Your task to perform on an android device: Go to internet settings Image 0: 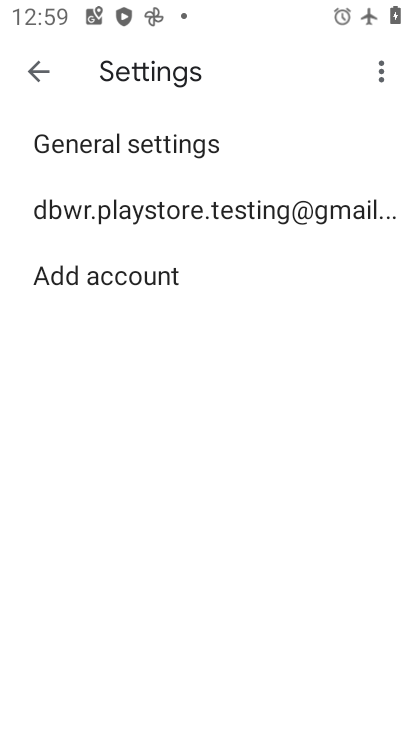
Step 0: press home button
Your task to perform on an android device: Go to internet settings Image 1: 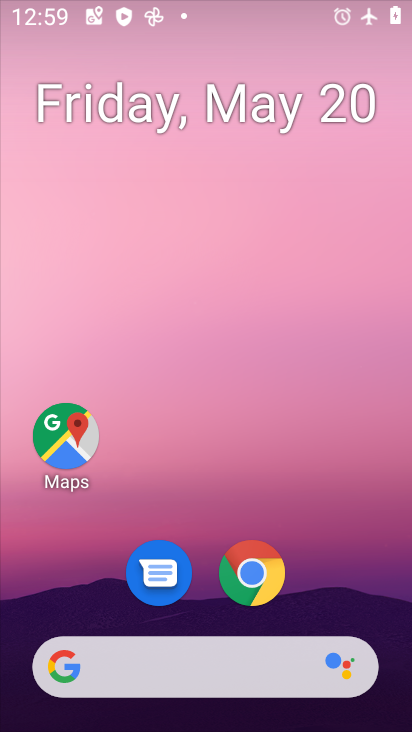
Step 1: drag from (222, 587) to (213, 54)
Your task to perform on an android device: Go to internet settings Image 2: 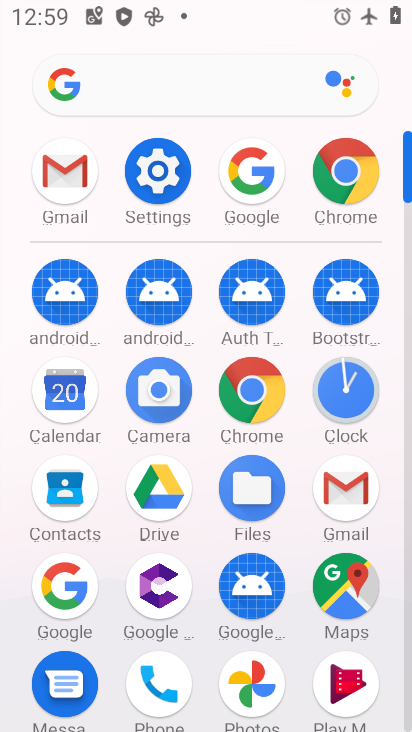
Step 2: click (156, 154)
Your task to perform on an android device: Go to internet settings Image 3: 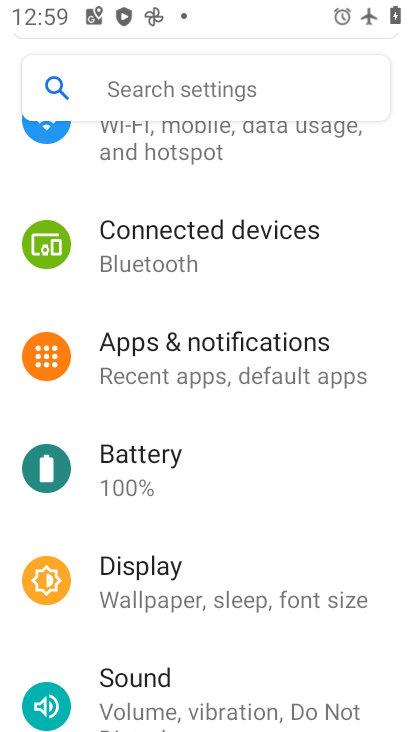
Step 3: click (156, 139)
Your task to perform on an android device: Go to internet settings Image 4: 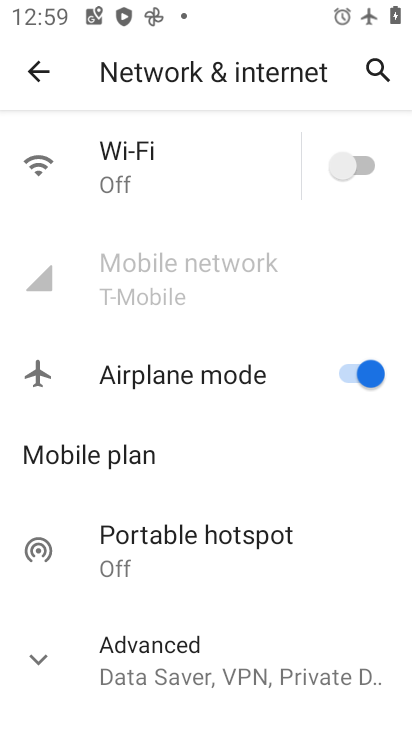
Step 4: click (162, 164)
Your task to perform on an android device: Go to internet settings Image 5: 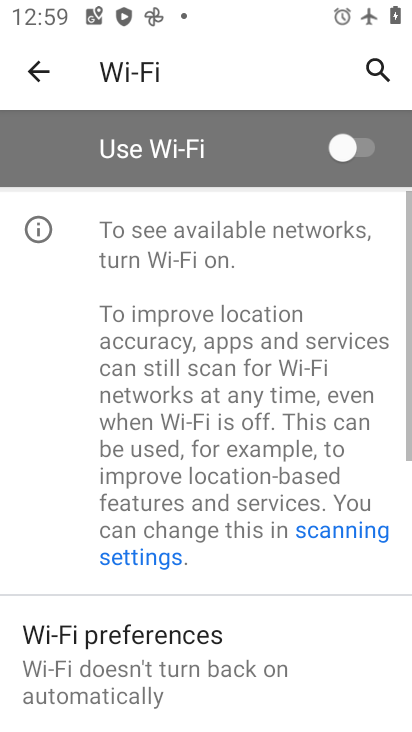
Step 5: click (332, 151)
Your task to perform on an android device: Go to internet settings Image 6: 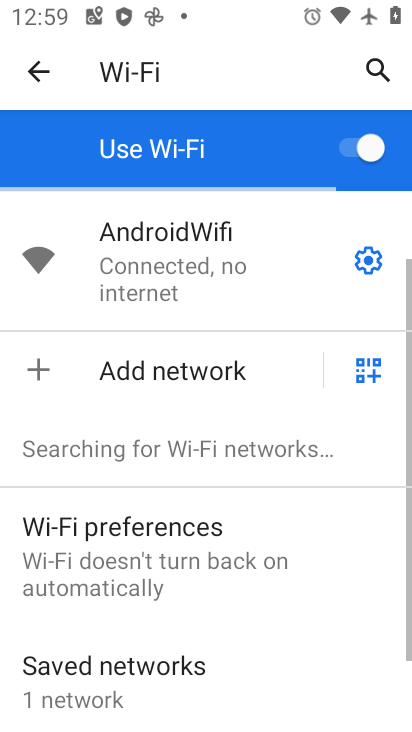
Step 6: click (161, 228)
Your task to perform on an android device: Go to internet settings Image 7: 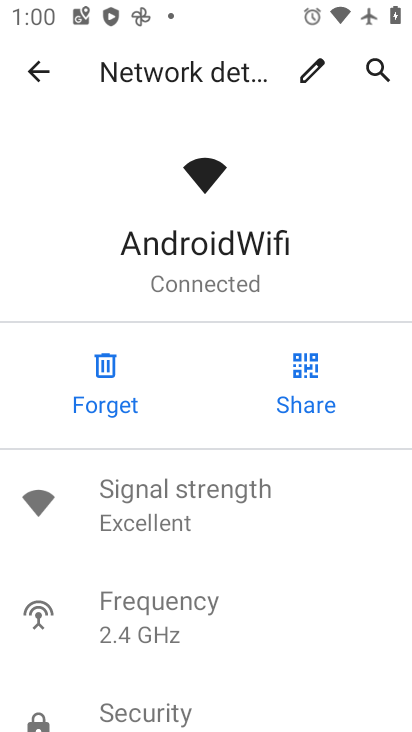
Step 7: task complete